Your task to perform on an android device: install app "ZOOM Cloud Meetings" Image 0: 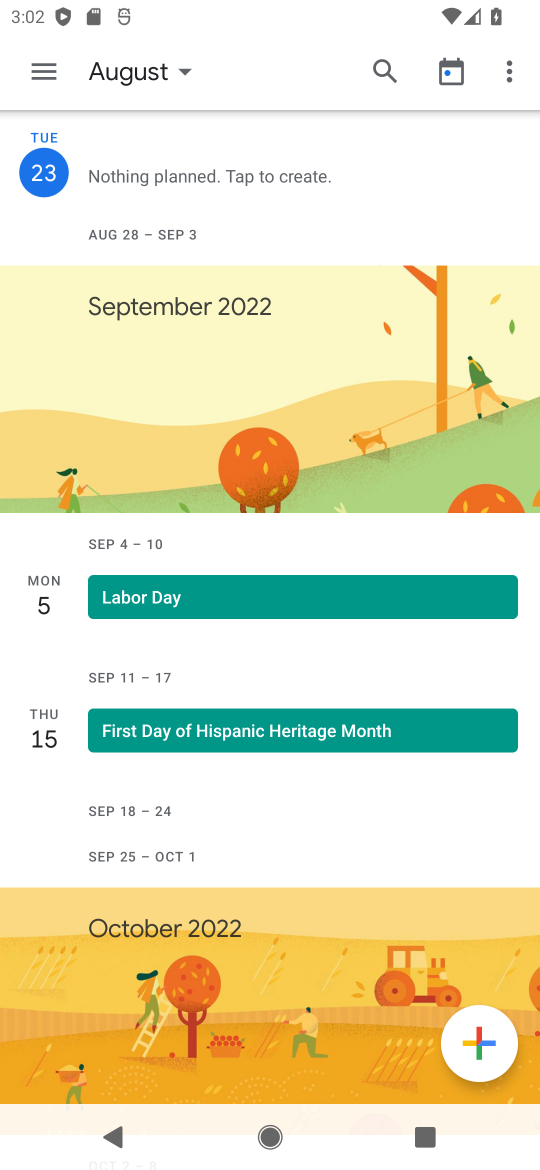
Step 0: press home button
Your task to perform on an android device: install app "ZOOM Cloud Meetings" Image 1: 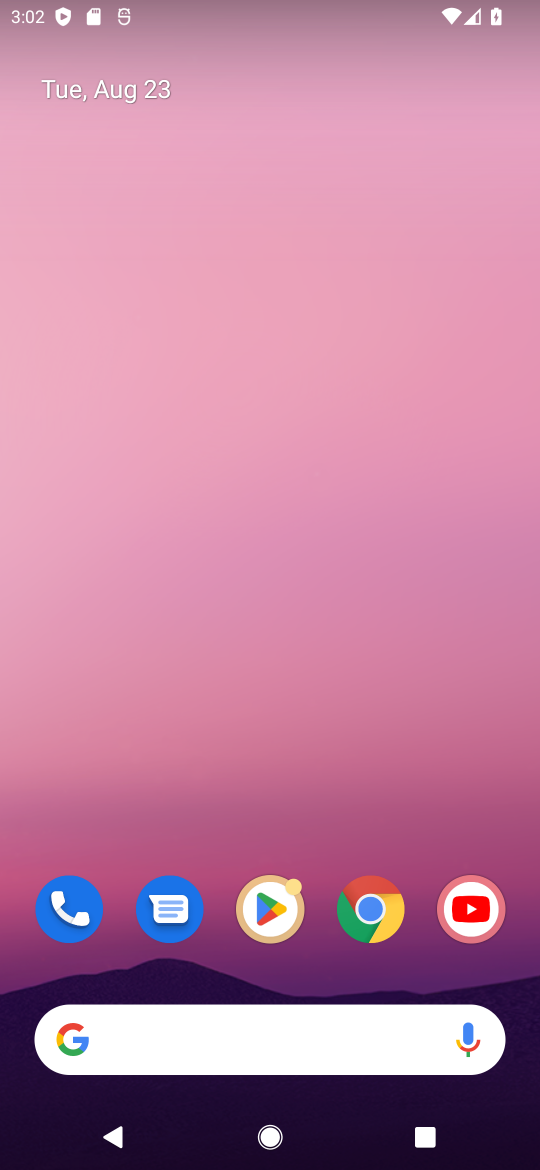
Step 1: click (262, 900)
Your task to perform on an android device: install app "ZOOM Cloud Meetings" Image 2: 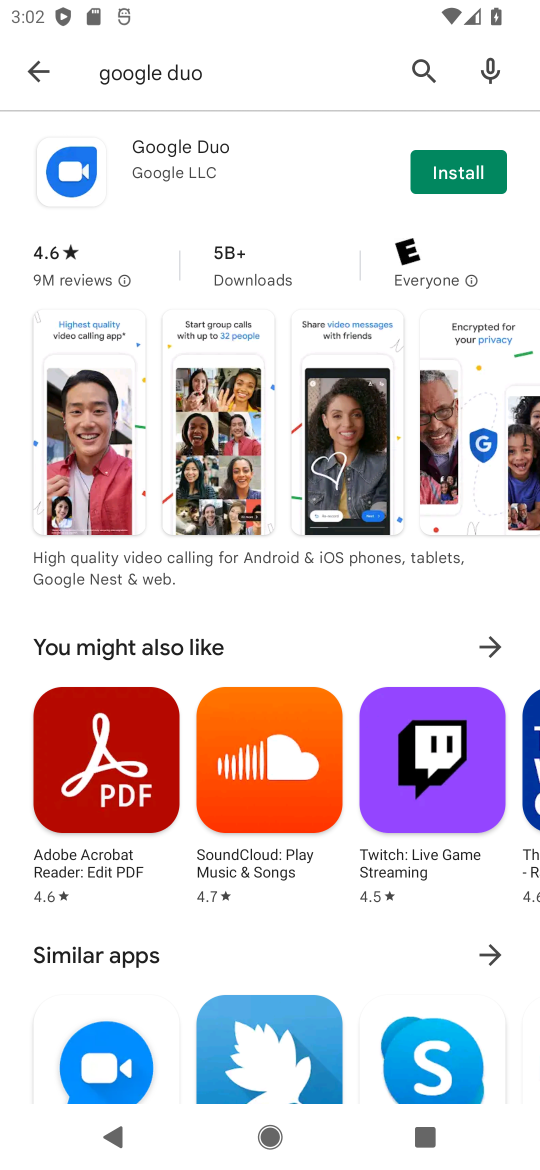
Step 2: click (412, 74)
Your task to perform on an android device: install app "ZOOM Cloud Meetings" Image 3: 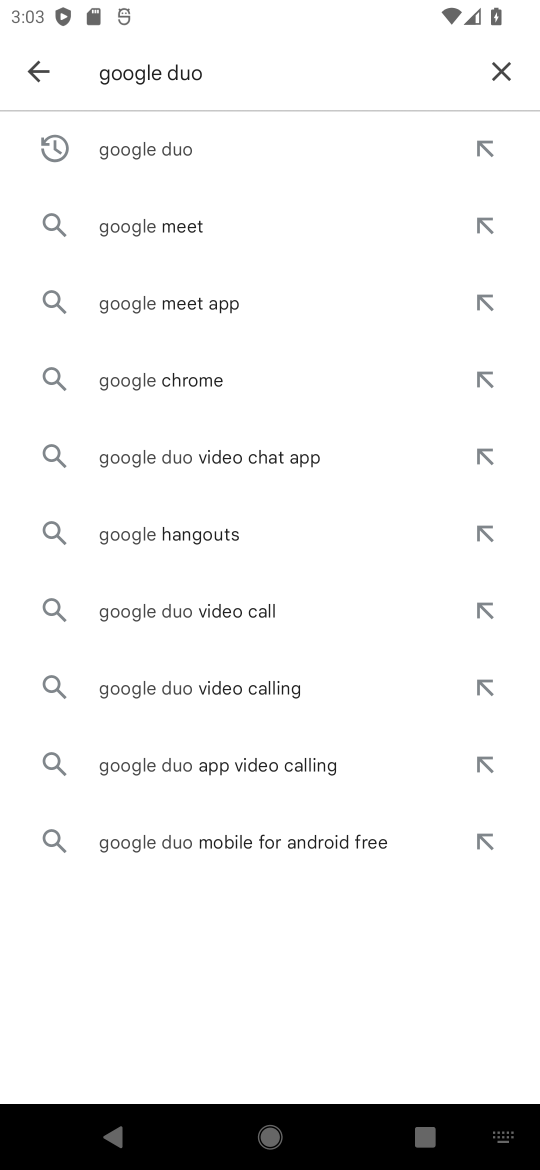
Step 3: click (502, 71)
Your task to perform on an android device: install app "ZOOM Cloud Meetings" Image 4: 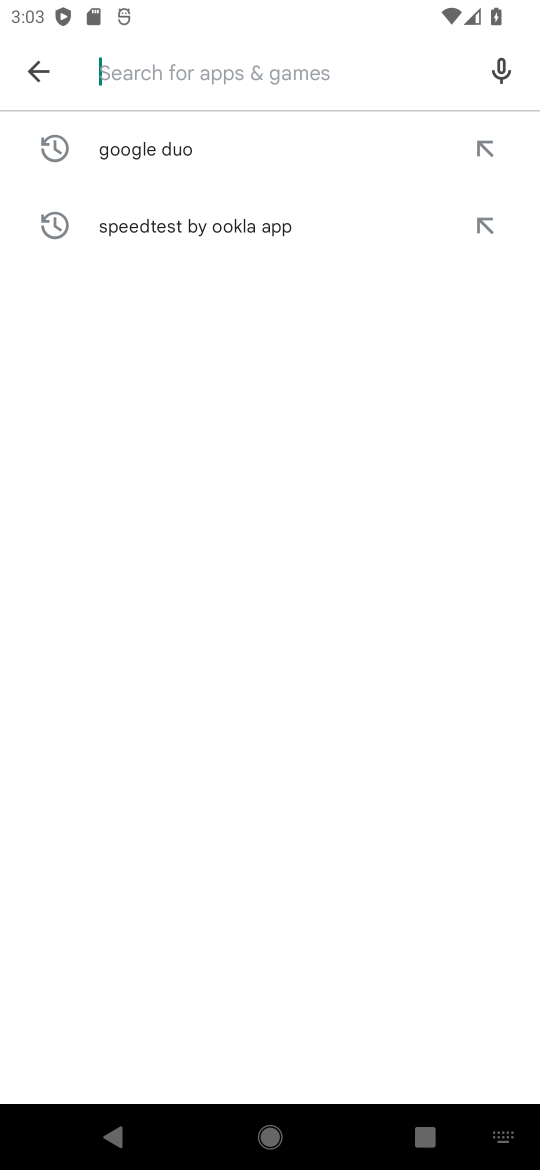
Step 4: type "ZOOM Cloud Meetings"
Your task to perform on an android device: install app "ZOOM Cloud Meetings" Image 5: 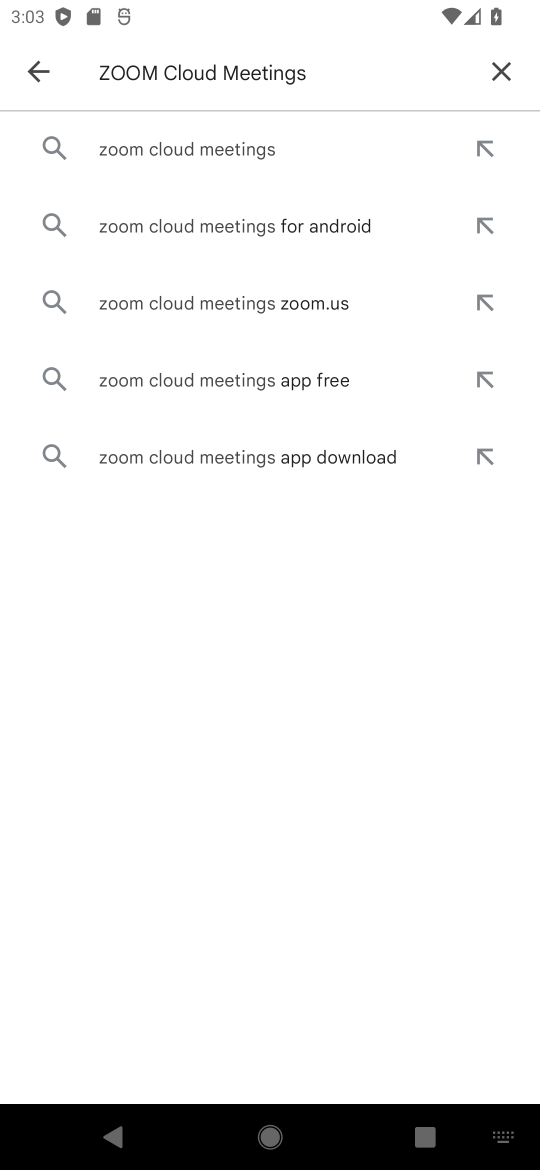
Step 5: click (260, 145)
Your task to perform on an android device: install app "ZOOM Cloud Meetings" Image 6: 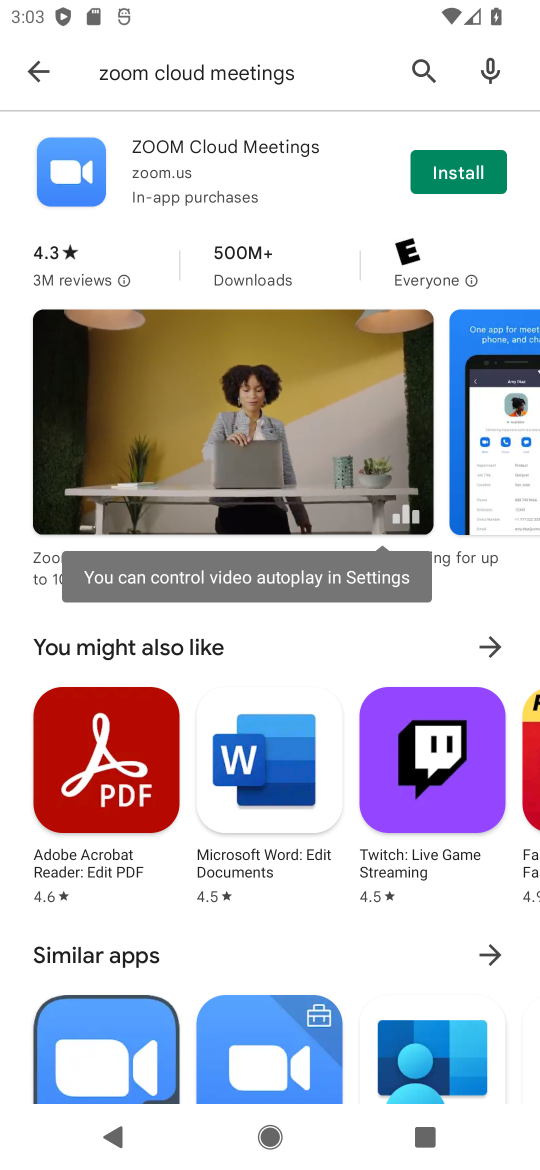
Step 6: click (455, 167)
Your task to perform on an android device: install app "ZOOM Cloud Meetings" Image 7: 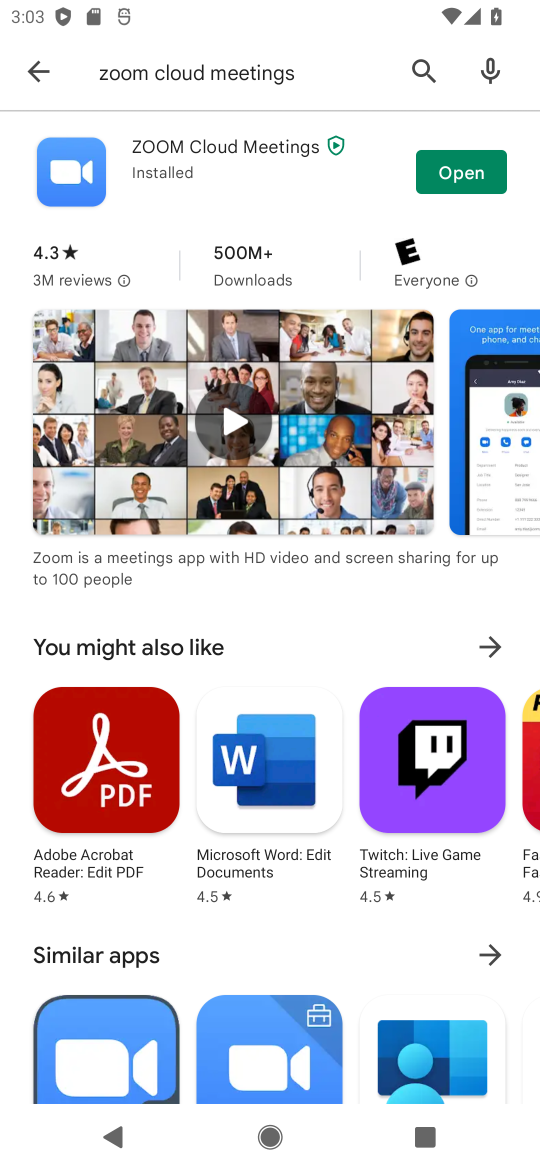
Step 7: click (455, 159)
Your task to perform on an android device: install app "ZOOM Cloud Meetings" Image 8: 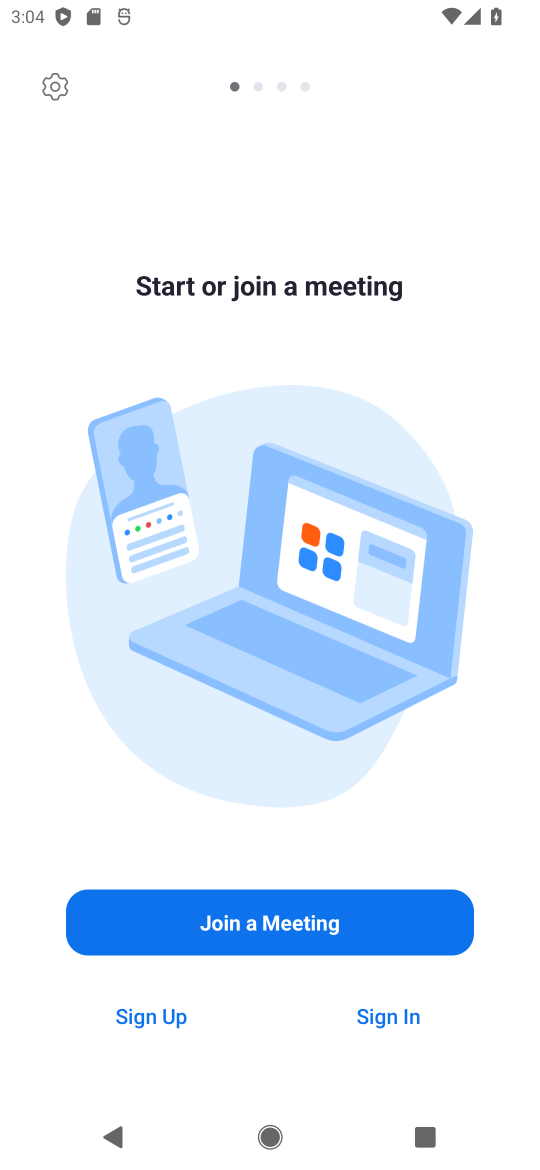
Step 8: task complete